Your task to perform on an android device: turn on notifications settings in the gmail app Image 0: 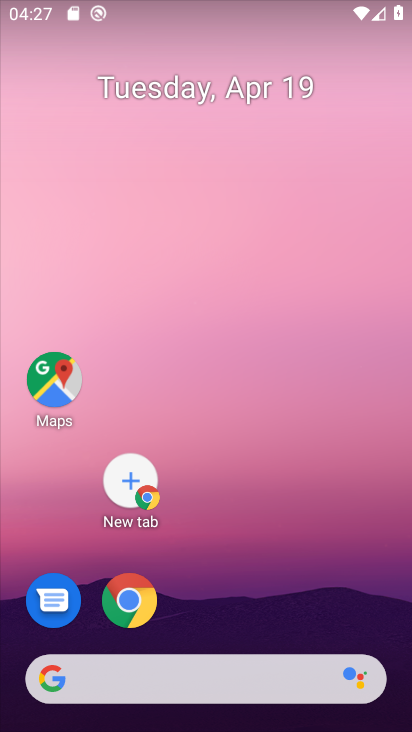
Step 0: drag from (197, 626) to (182, 81)
Your task to perform on an android device: turn on notifications settings in the gmail app Image 1: 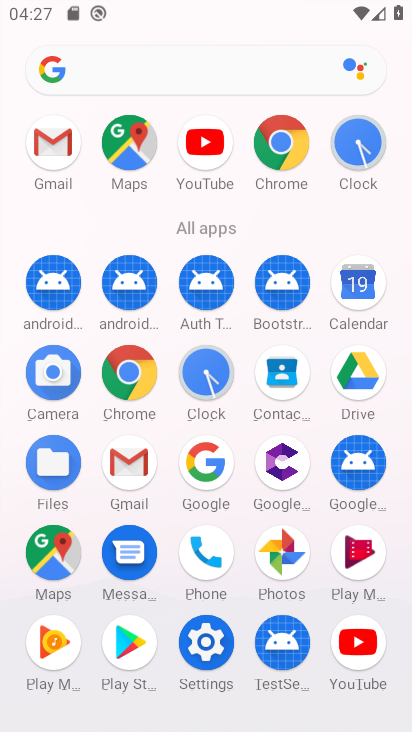
Step 1: click (64, 128)
Your task to perform on an android device: turn on notifications settings in the gmail app Image 2: 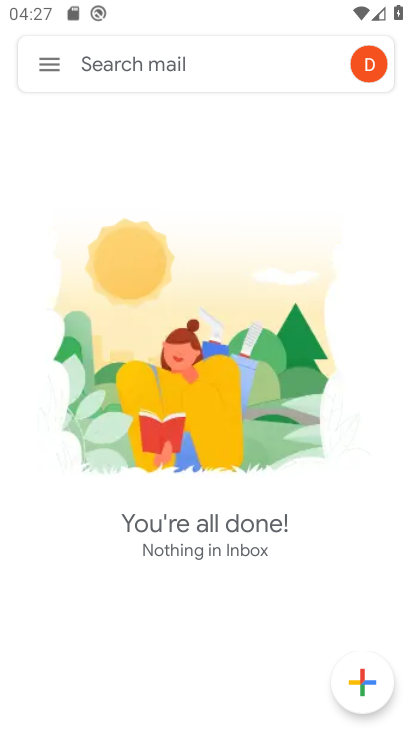
Step 2: click (61, 55)
Your task to perform on an android device: turn on notifications settings in the gmail app Image 3: 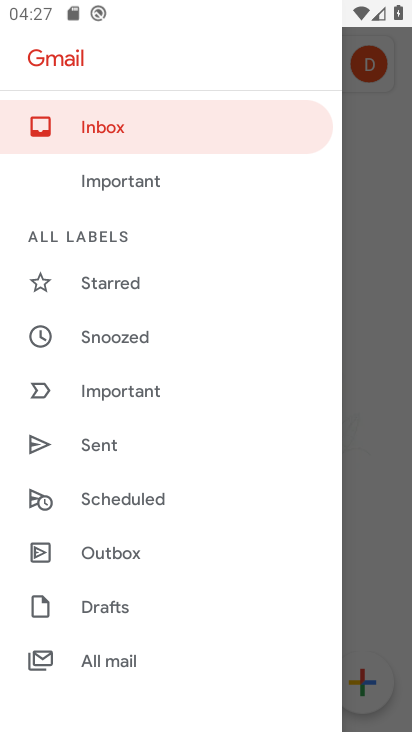
Step 3: drag from (159, 683) to (173, 133)
Your task to perform on an android device: turn on notifications settings in the gmail app Image 4: 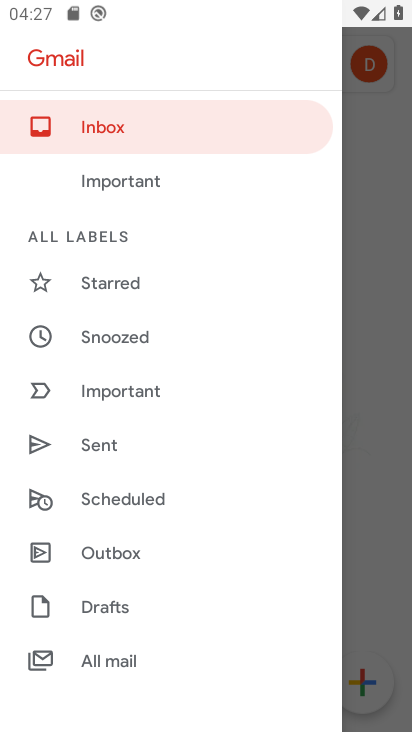
Step 4: drag from (124, 596) to (141, 127)
Your task to perform on an android device: turn on notifications settings in the gmail app Image 5: 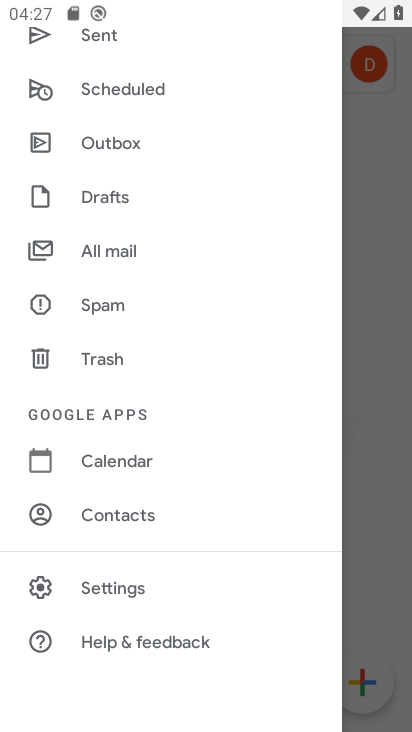
Step 5: click (130, 595)
Your task to perform on an android device: turn on notifications settings in the gmail app Image 6: 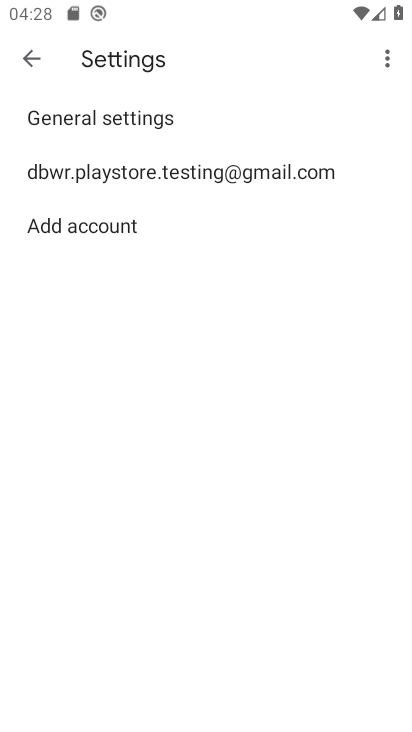
Step 6: click (226, 180)
Your task to perform on an android device: turn on notifications settings in the gmail app Image 7: 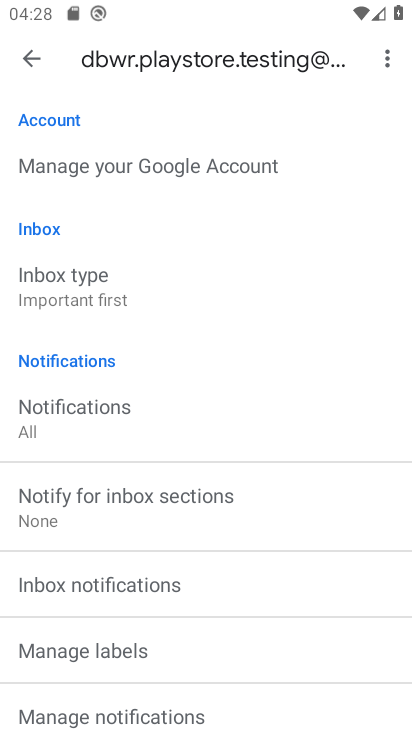
Step 7: click (129, 456)
Your task to perform on an android device: turn on notifications settings in the gmail app Image 8: 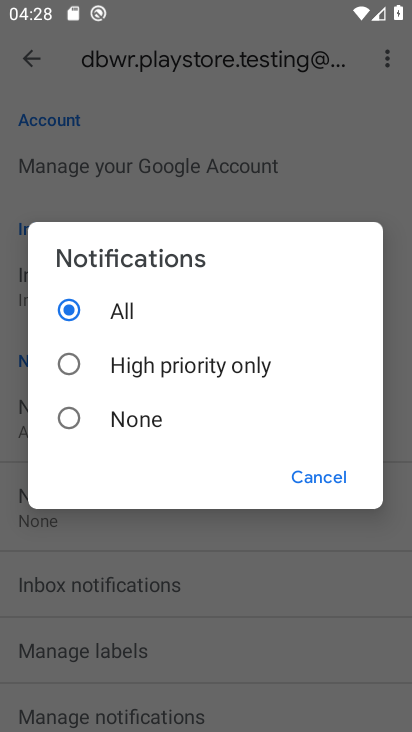
Step 8: task complete